Your task to perform on an android device: turn on javascript in the chrome app Image 0: 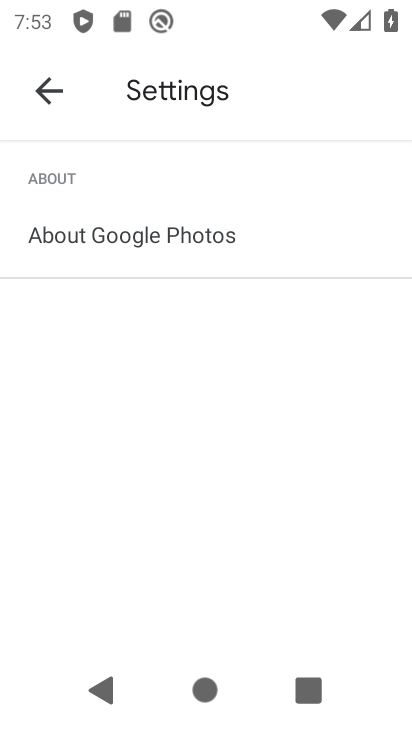
Step 0: press home button
Your task to perform on an android device: turn on javascript in the chrome app Image 1: 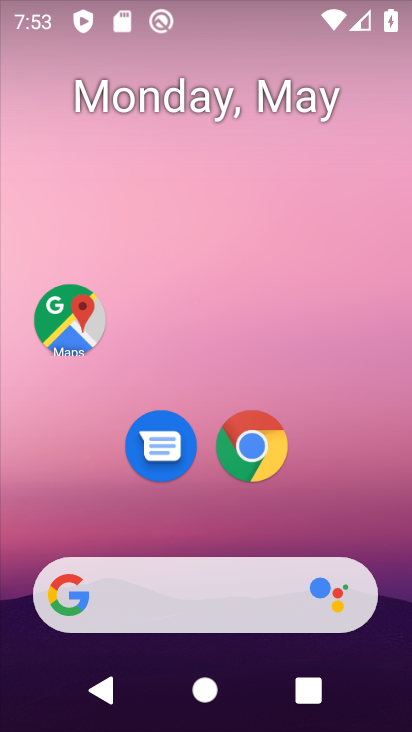
Step 1: click (258, 440)
Your task to perform on an android device: turn on javascript in the chrome app Image 2: 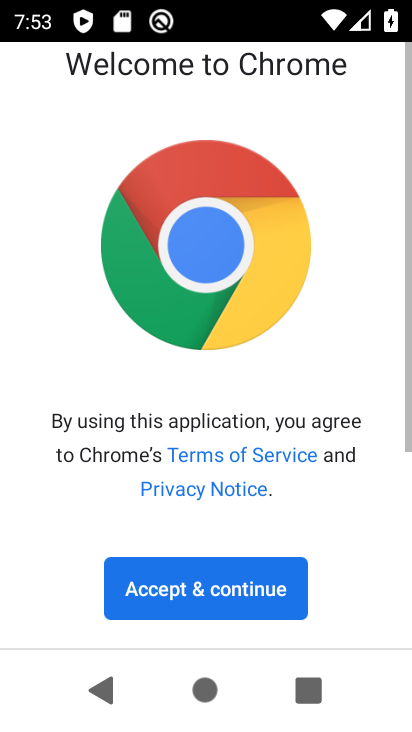
Step 2: click (200, 579)
Your task to perform on an android device: turn on javascript in the chrome app Image 3: 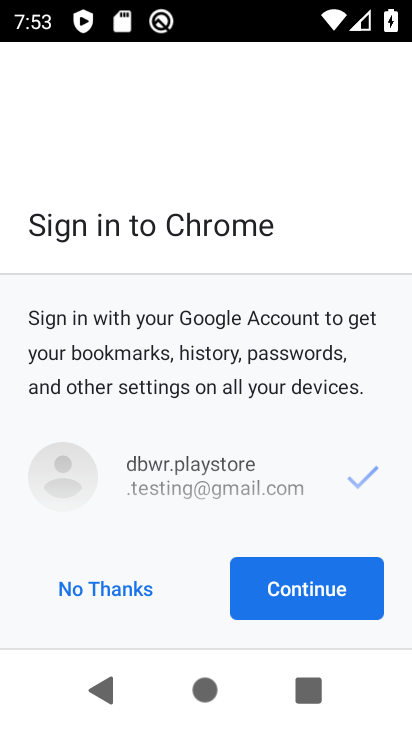
Step 3: click (294, 611)
Your task to perform on an android device: turn on javascript in the chrome app Image 4: 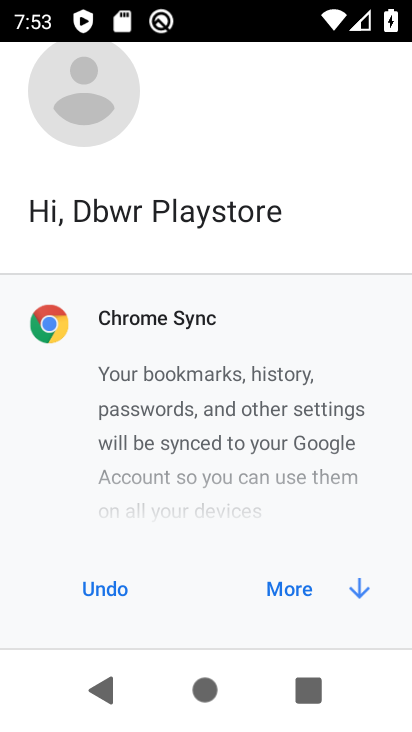
Step 4: click (310, 579)
Your task to perform on an android device: turn on javascript in the chrome app Image 5: 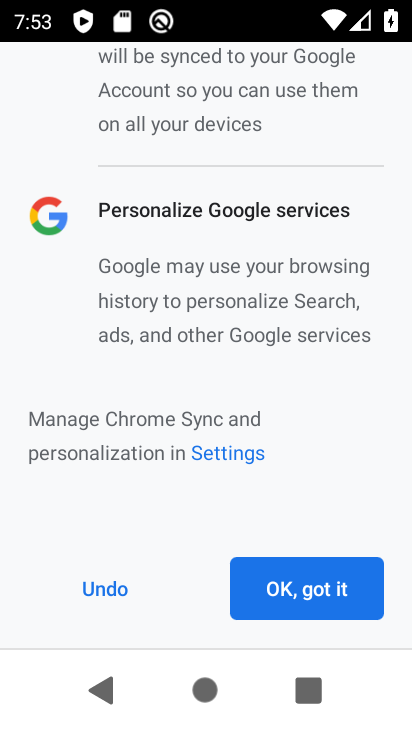
Step 5: click (310, 579)
Your task to perform on an android device: turn on javascript in the chrome app Image 6: 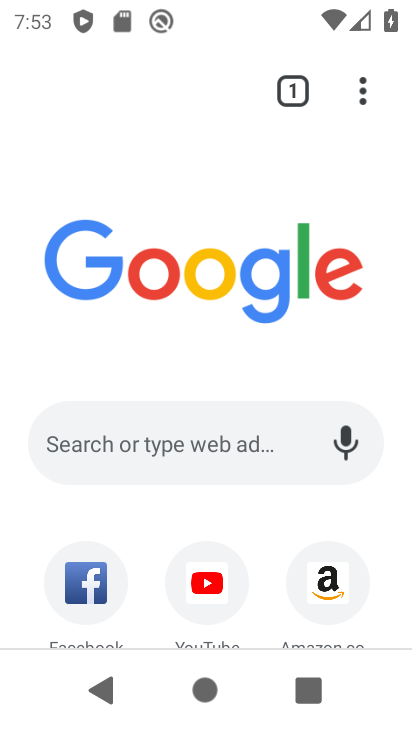
Step 6: click (364, 88)
Your task to perform on an android device: turn on javascript in the chrome app Image 7: 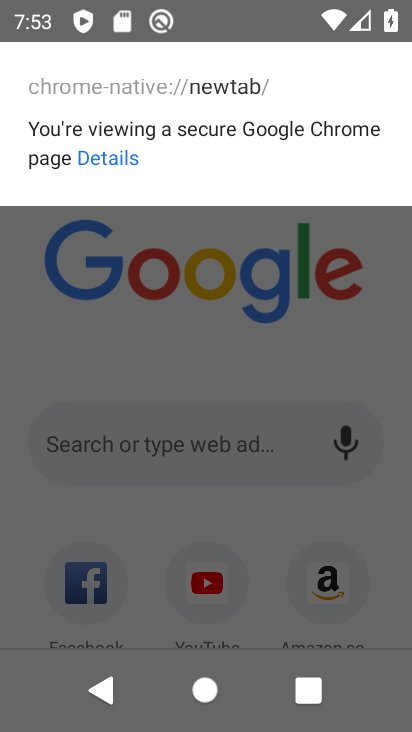
Step 7: click (329, 271)
Your task to perform on an android device: turn on javascript in the chrome app Image 8: 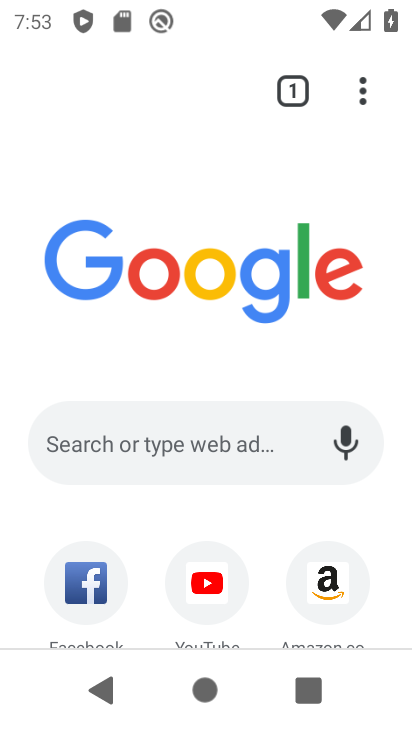
Step 8: click (346, 102)
Your task to perform on an android device: turn on javascript in the chrome app Image 9: 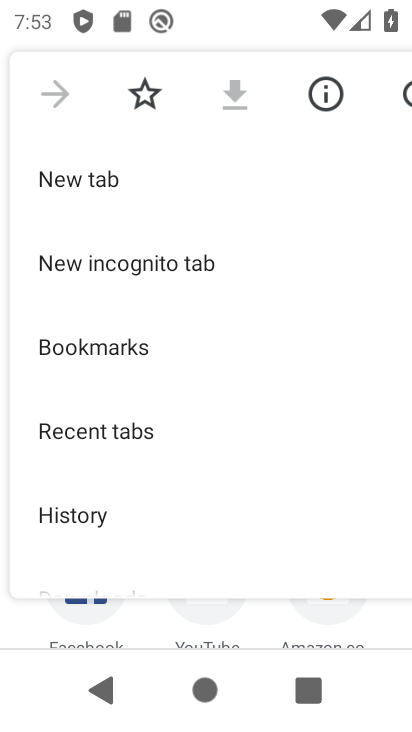
Step 9: drag from (160, 529) to (170, 424)
Your task to perform on an android device: turn on javascript in the chrome app Image 10: 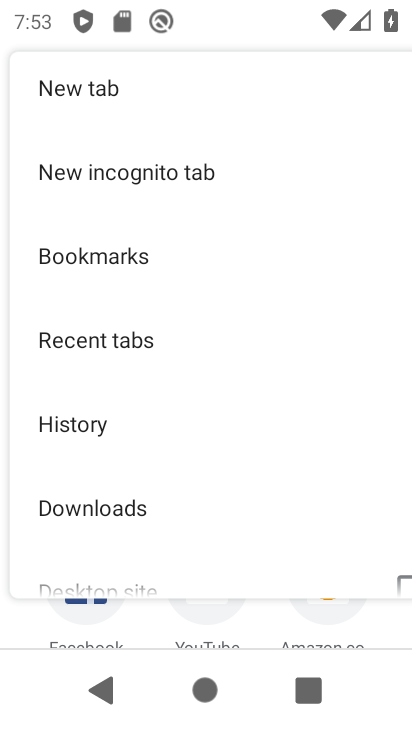
Step 10: drag from (155, 519) to (162, 448)
Your task to perform on an android device: turn on javascript in the chrome app Image 11: 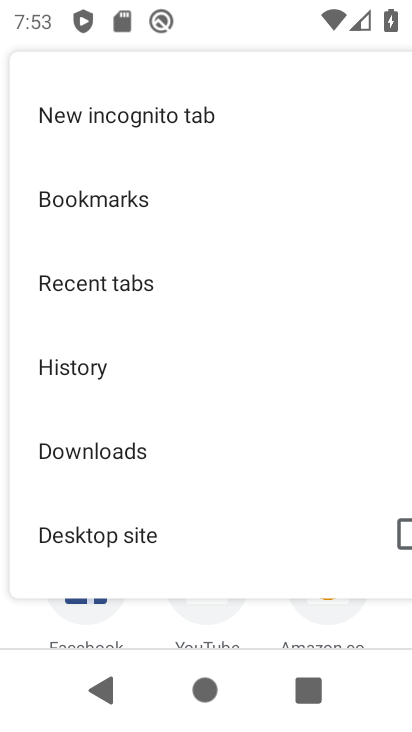
Step 11: drag from (141, 539) to (170, 444)
Your task to perform on an android device: turn on javascript in the chrome app Image 12: 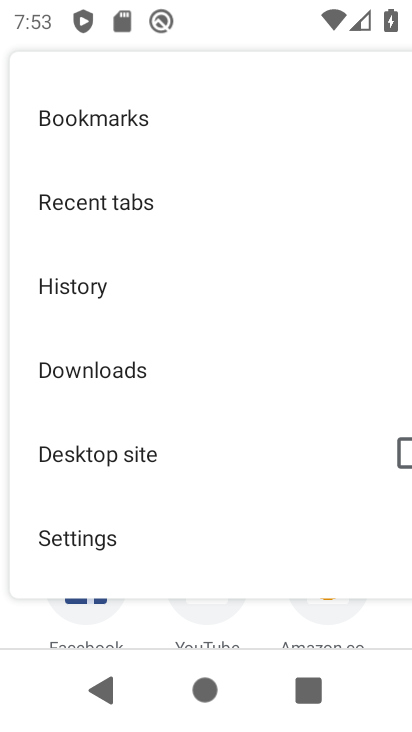
Step 12: drag from (157, 549) to (176, 466)
Your task to perform on an android device: turn on javascript in the chrome app Image 13: 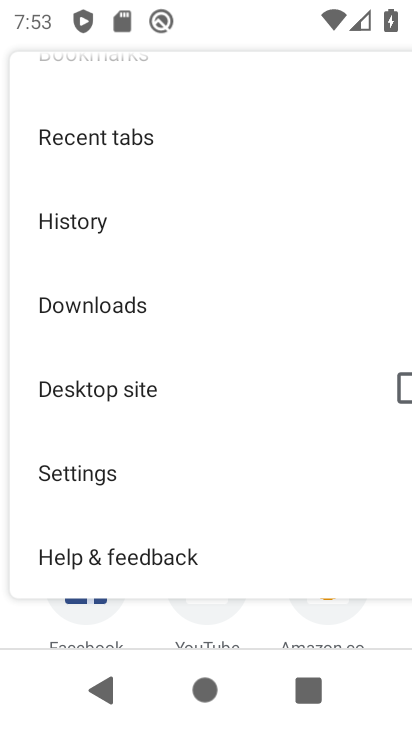
Step 13: click (176, 475)
Your task to perform on an android device: turn on javascript in the chrome app Image 14: 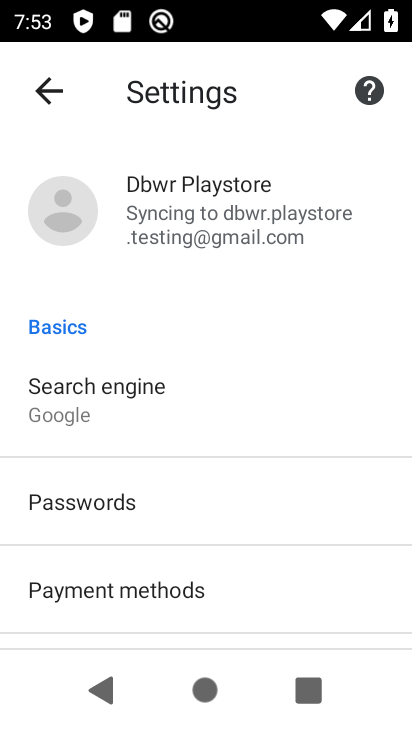
Step 14: drag from (176, 478) to (213, 354)
Your task to perform on an android device: turn on javascript in the chrome app Image 15: 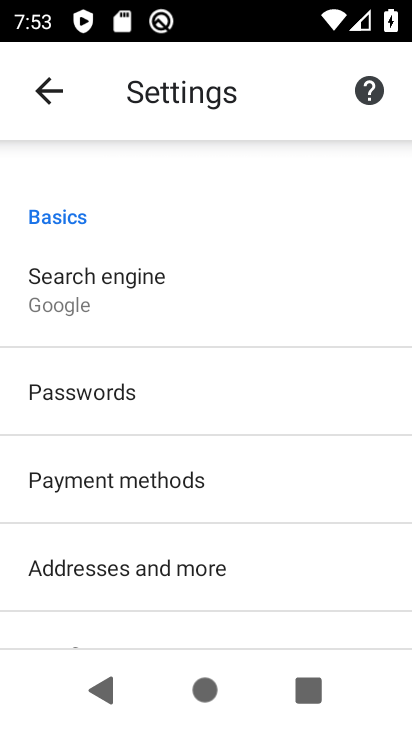
Step 15: drag from (188, 583) to (203, 501)
Your task to perform on an android device: turn on javascript in the chrome app Image 16: 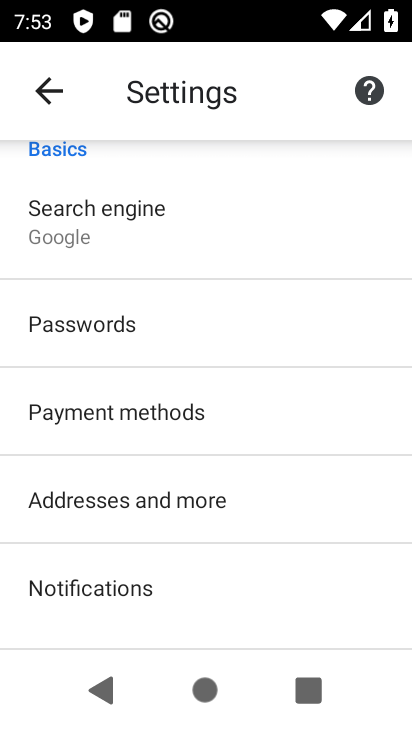
Step 16: drag from (190, 612) to (204, 525)
Your task to perform on an android device: turn on javascript in the chrome app Image 17: 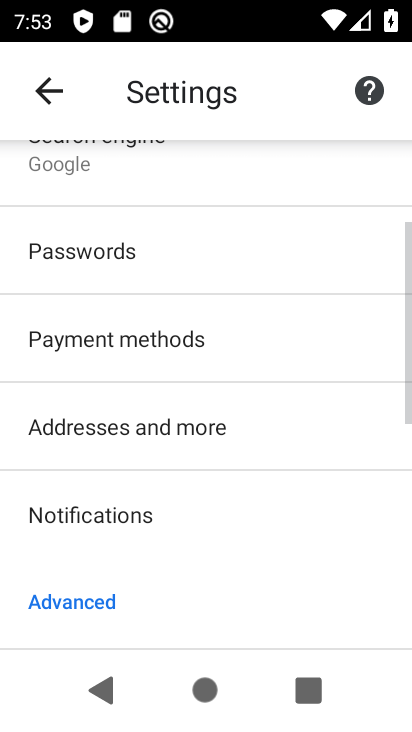
Step 17: drag from (193, 641) to (204, 577)
Your task to perform on an android device: turn on javascript in the chrome app Image 18: 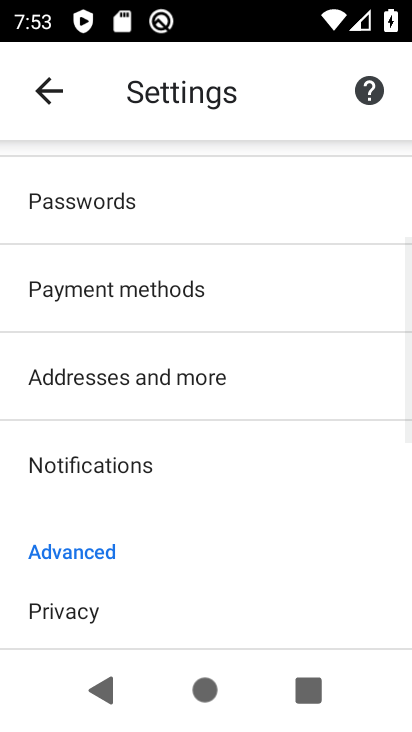
Step 18: drag from (197, 625) to (209, 547)
Your task to perform on an android device: turn on javascript in the chrome app Image 19: 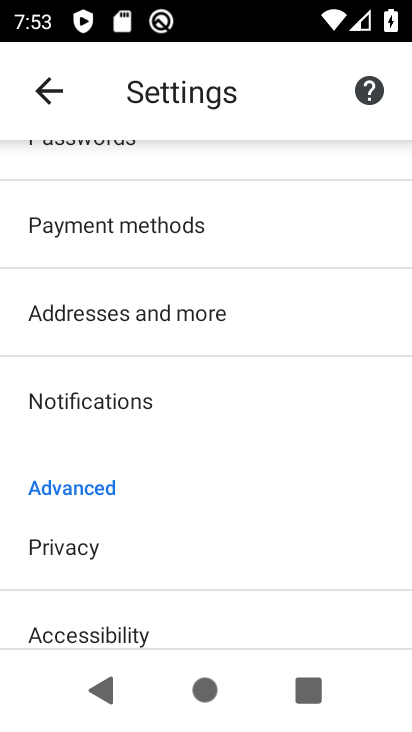
Step 19: drag from (193, 625) to (224, 529)
Your task to perform on an android device: turn on javascript in the chrome app Image 20: 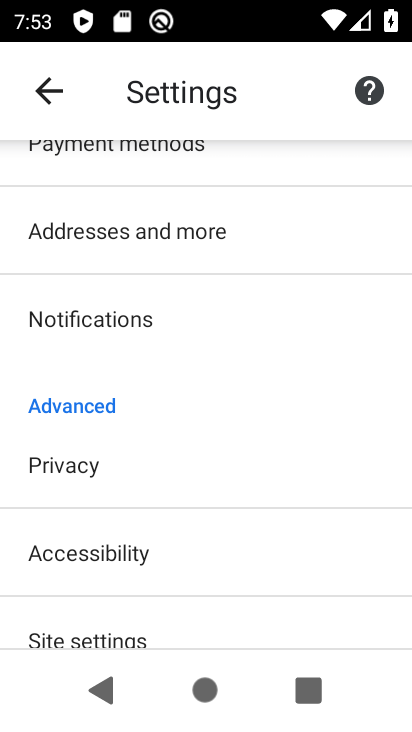
Step 20: click (193, 630)
Your task to perform on an android device: turn on javascript in the chrome app Image 21: 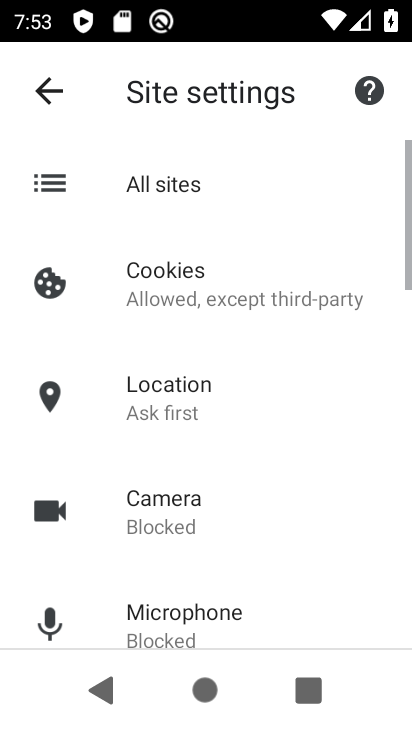
Step 21: drag from (199, 619) to (218, 514)
Your task to perform on an android device: turn on javascript in the chrome app Image 22: 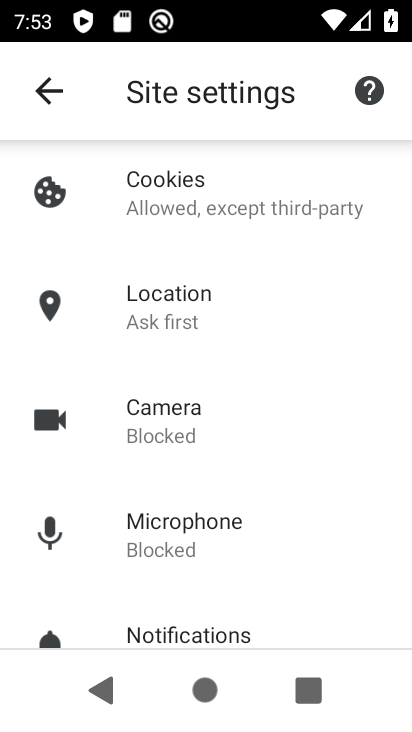
Step 22: drag from (202, 595) to (220, 486)
Your task to perform on an android device: turn on javascript in the chrome app Image 23: 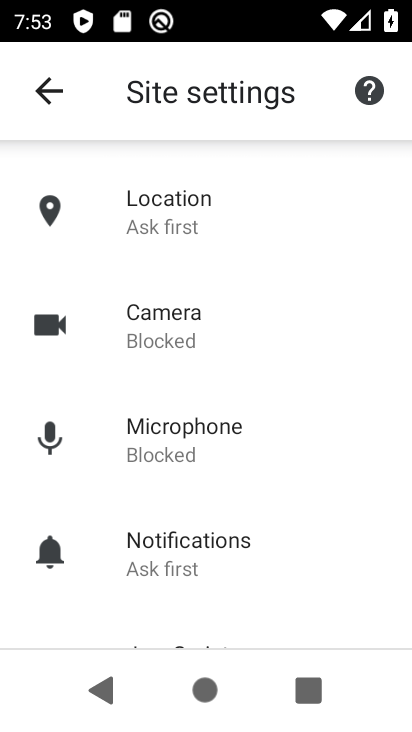
Step 23: drag from (211, 613) to (237, 521)
Your task to perform on an android device: turn on javascript in the chrome app Image 24: 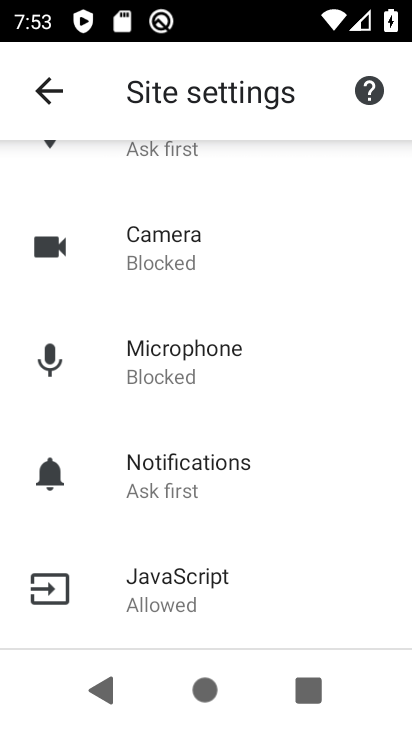
Step 24: click (242, 595)
Your task to perform on an android device: turn on javascript in the chrome app Image 25: 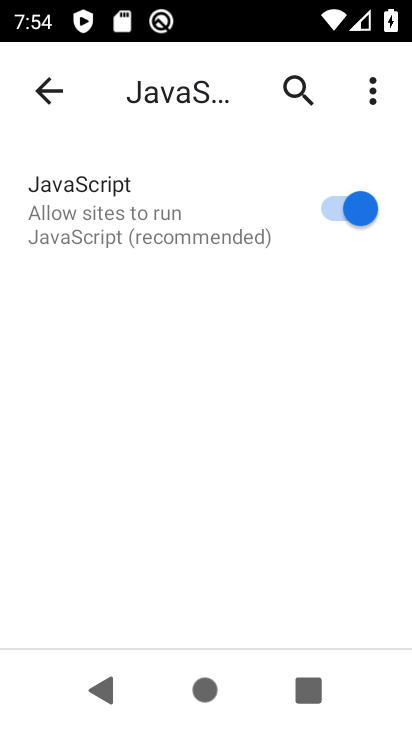
Step 25: task complete